Your task to perform on an android device: uninstall "LinkedIn" Image 0: 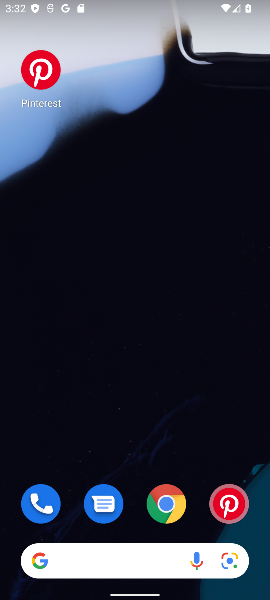
Step 0: drag from (134, 466) to (144, 57)
Your task to perform on an android device: uninstall "LinkedIn" Image 1: 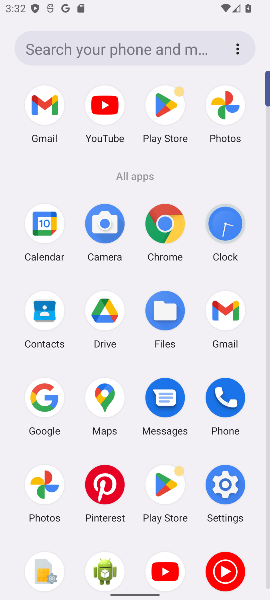
Step 1: click (160, 489)
Your task to perform on an android device: uninstall "LinkedIn" Image 2: 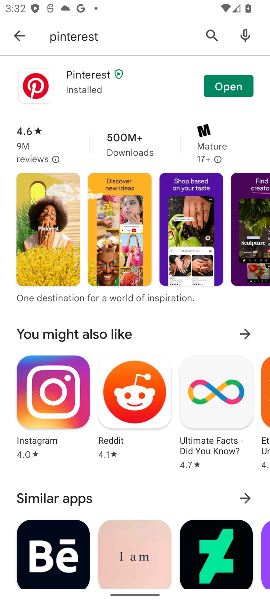
Step 2: click (210, 31)
Your task to perform on an android device: uninstall "LinkedIn" Image 3: 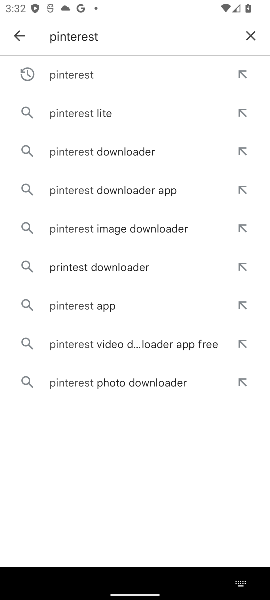
Step 3: click (248, 34)
Your task to perform on an android device: uninstall "LinkedIn" Image 4: 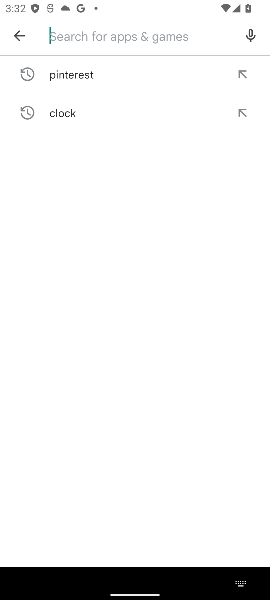
Step 4: type "LinkedIn"
Your task to perform on an android device: uninstall "LinkedIn" Image 5: 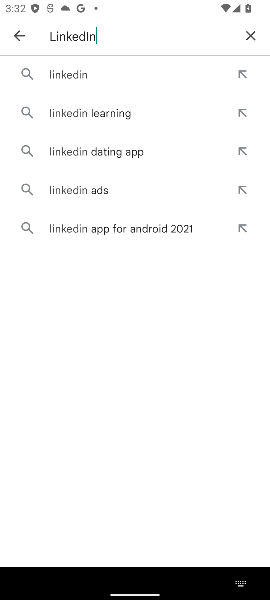
Step 5: click (105, 66)
Your task to perform on an android device: uninstall "LinkedIn" Image 6: 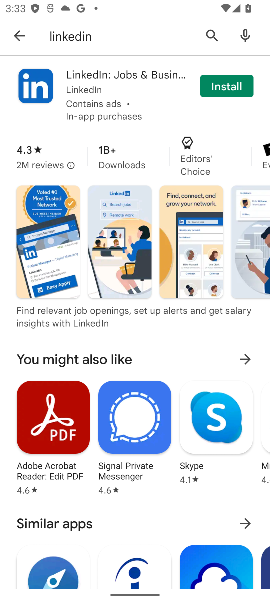
Step 6: task complete